Your task to perform on an android device: toggle pop-ups in chrome Image 0: 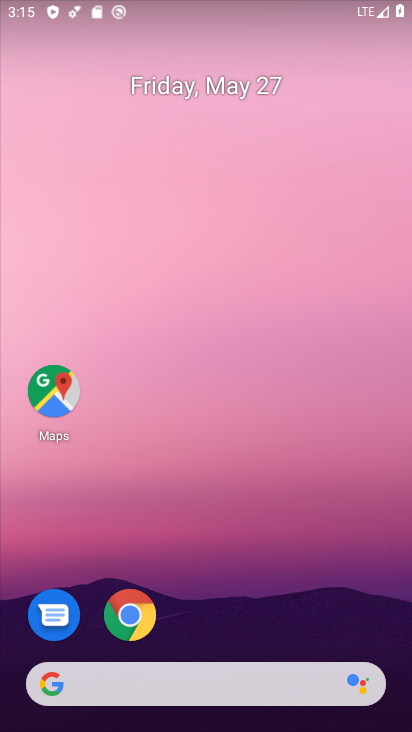
Step 0: click (121, 621)
Your task to perform on an android device: toggle pop-ups in chrome Image 1: 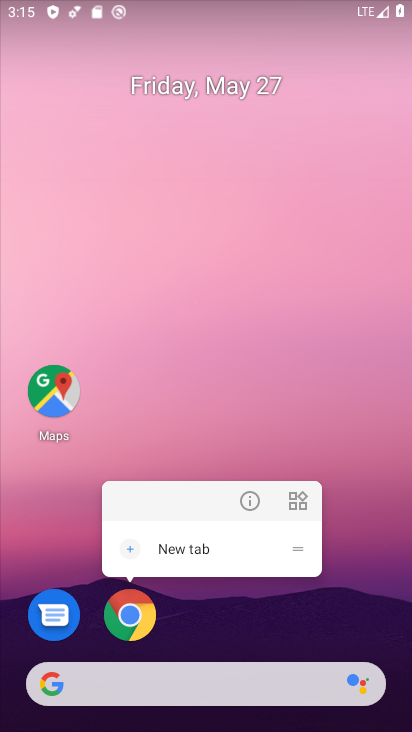
Step 1: click (121, 621)
Your task to perform on an android device: toggle pop-ups in chrome Image 2: 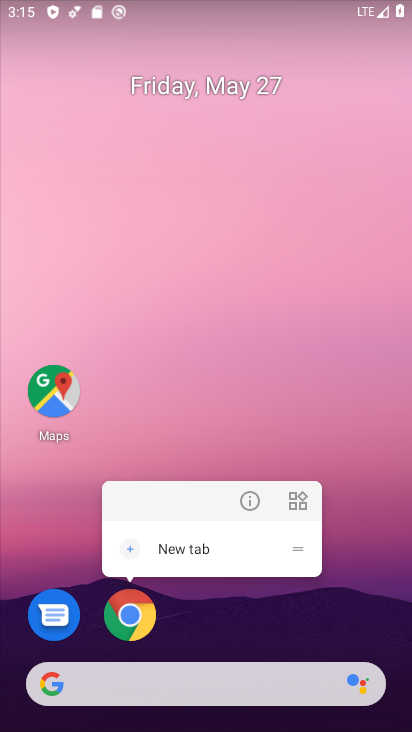
Step 2: click (121, 621)
Your task to perform on an android device: toggle pop-ups in chrome Image 3: 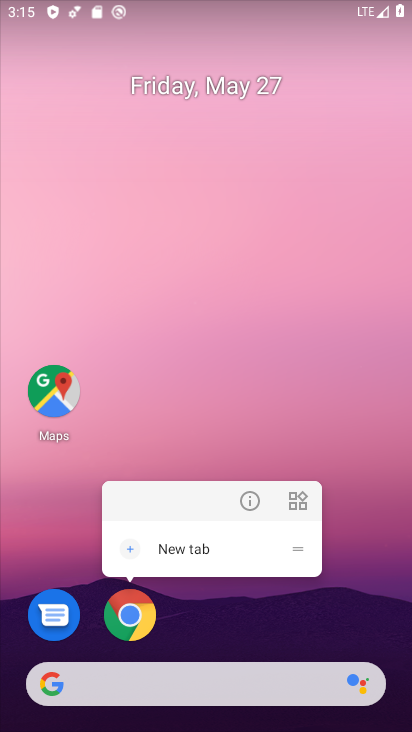
Step 3: click (121, 621)
Your task to perform on an android device: toggle pop-ups in chrome Image 4: 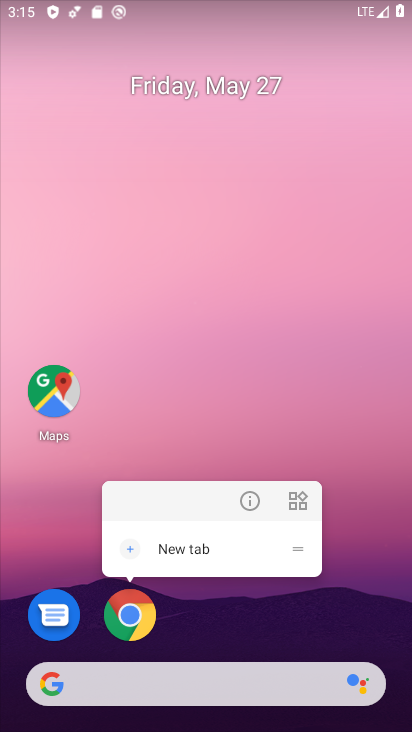
Step 4: click (121, 621)
Your task to perform on an android device: toggle pop-ups in chrome Image 5: 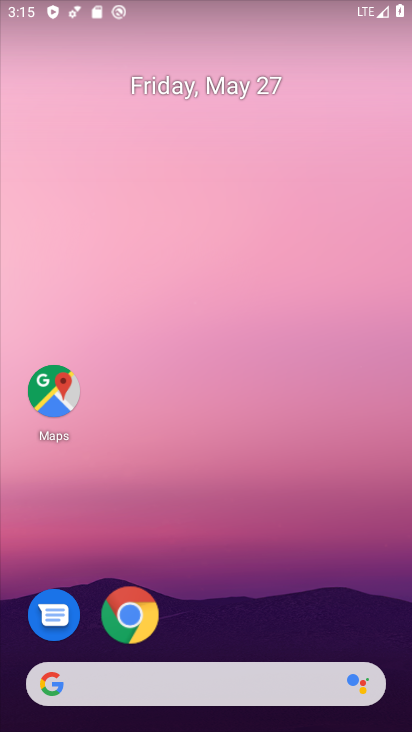
Step 5: click (121, 621)
Your task to perform on an android device: toggle pop-ups in chrome Image 6: 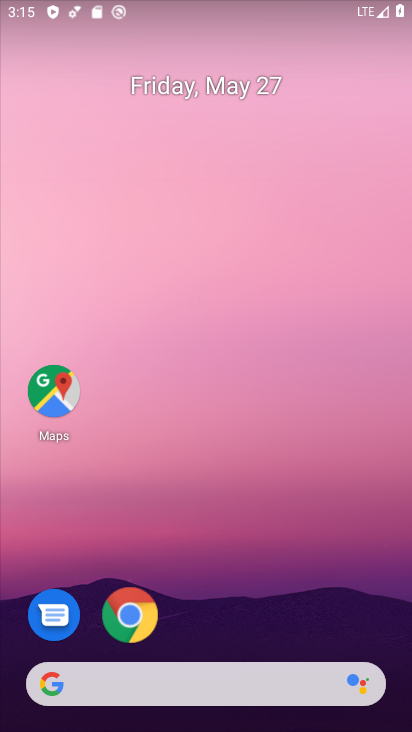
Step 6: click (121, 621)
Your task to perform on an android device: toggle pop-ups in chrome Image 7: 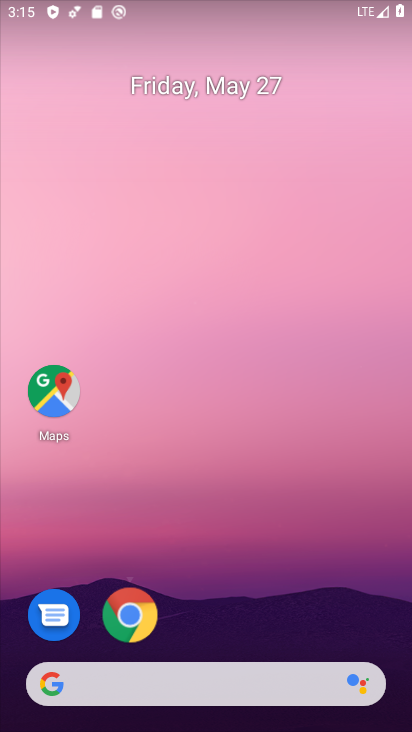
Step 7: click (121, 621)
Your task to perform on an android device: toggle pop-ups in chrome Image 8: 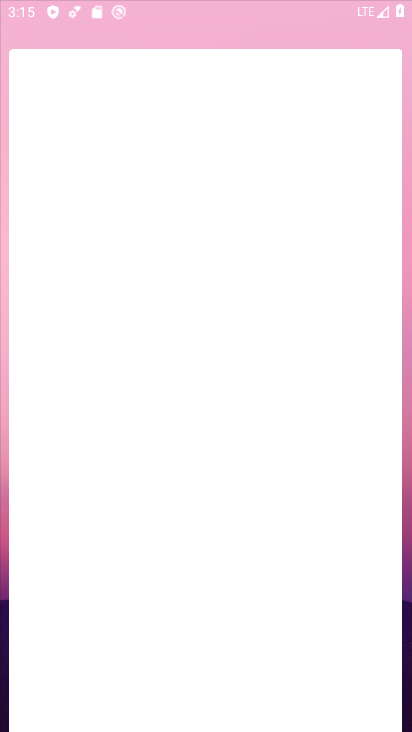
Step 8: click (121, 621)
Your task to perform on an android device: toggle pop-ups in chrome Image 9: 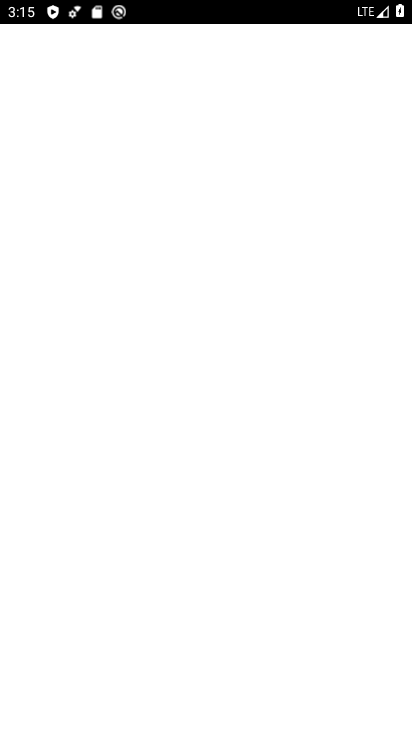
Step 9: click (121, 621)
Your task to perform on an android device: toggle pop-ups in chrome Image 10: 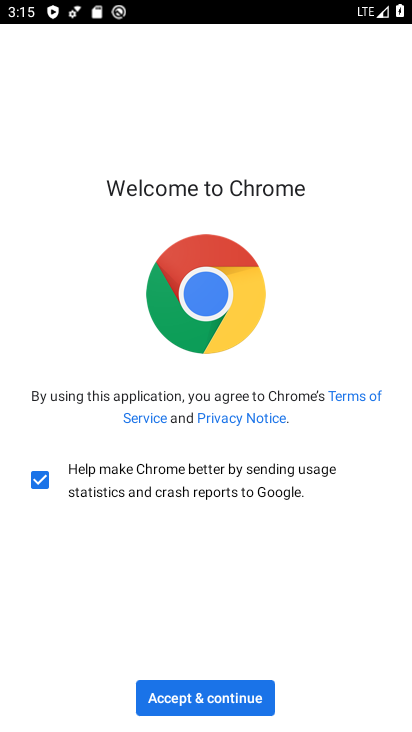
Step 10: click (170, 704)
Your task to perform on an android device: toggle pop-ups in chrome Image 11: 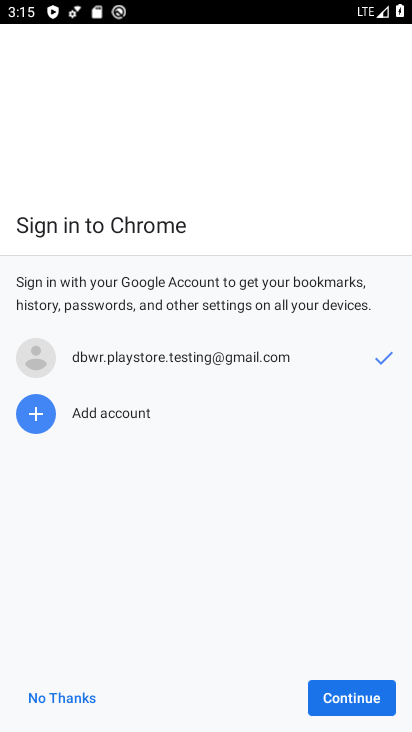
Step 11: click (64, 695)
Your task to perform on an android device: toggle pop-ups in chrome Image 12: 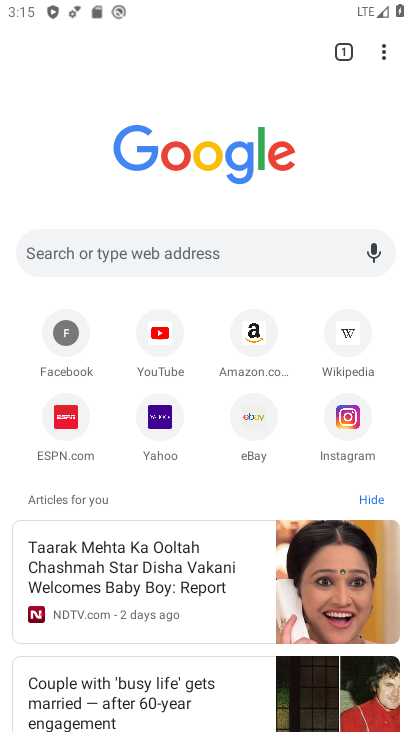
Step 12: click (382, 51)
Your task to perform on an android device: toggle pop-ups in chrome Image 13: 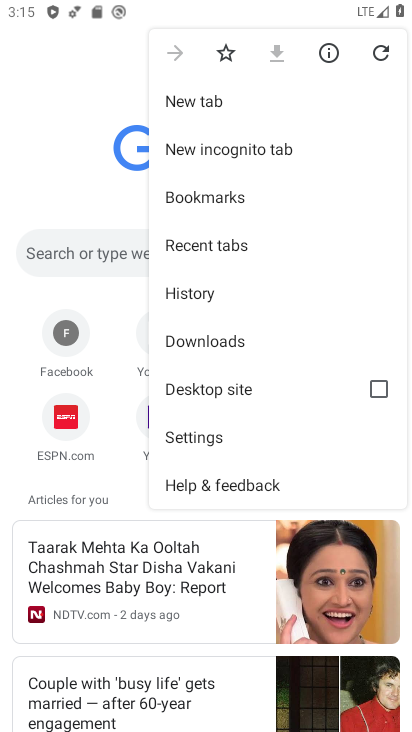
Step 13: click (160, 442)
Your task to perform on an android device: toggle pop-ups in chrome Image 14: 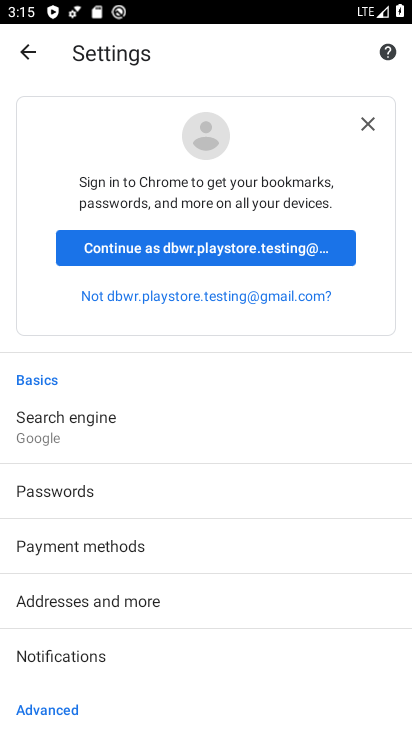
Step 14: drag from (165, 624) to (87, 25)
Your task to perform on an android device: toggle pop-ups in chrome Image 15: 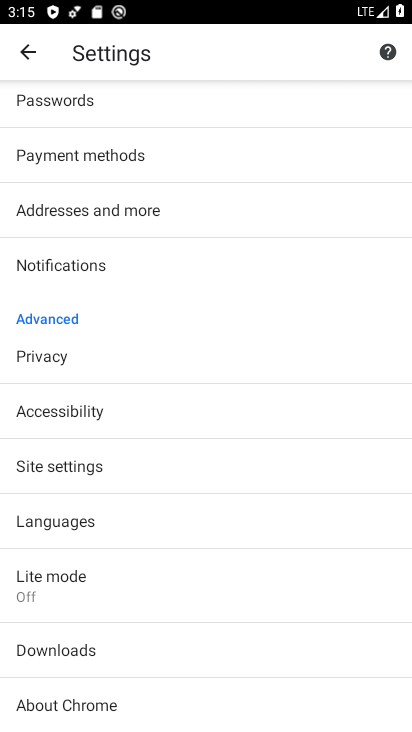
Step 15: click (67, 476)
Your task to perform on an android device: toggle pop-ups in chrome Image 16: 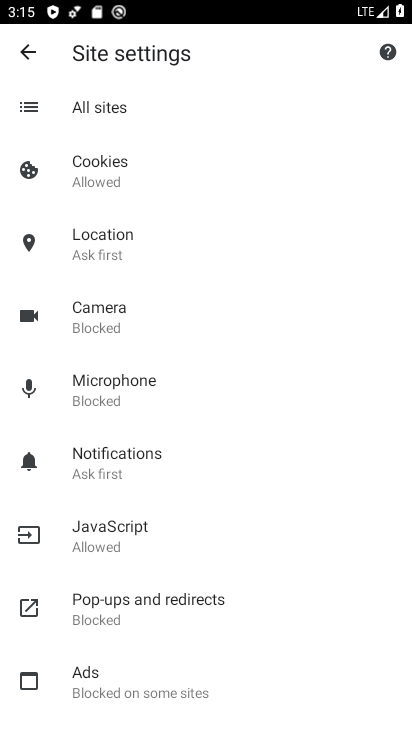
Step 16: click (123, 589)
Your task to perform on an android device: toggle pop-ups in chrome Image 17: 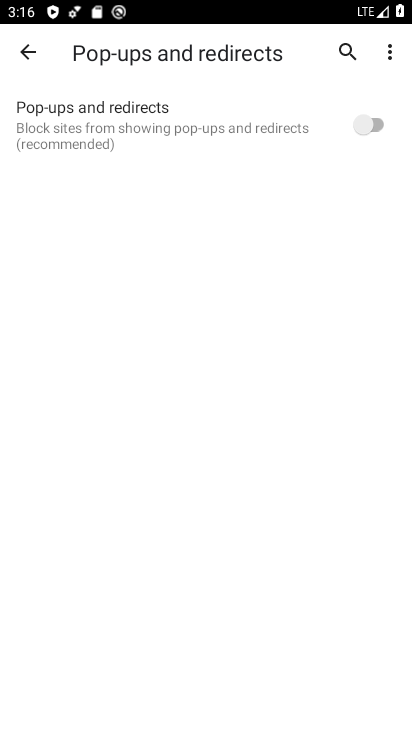
Step 17: click (370, 124)
Your task to perform on an android device: toggle pop-ups in chrome Image 18: 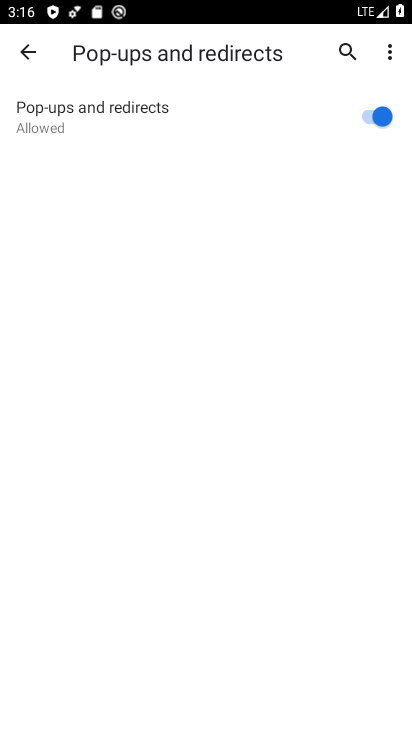
Step 18: task complete